Your task to perform on an android device: Show the shopping cart on costco. Add "sony triple a" to the cart on costco Image 0: 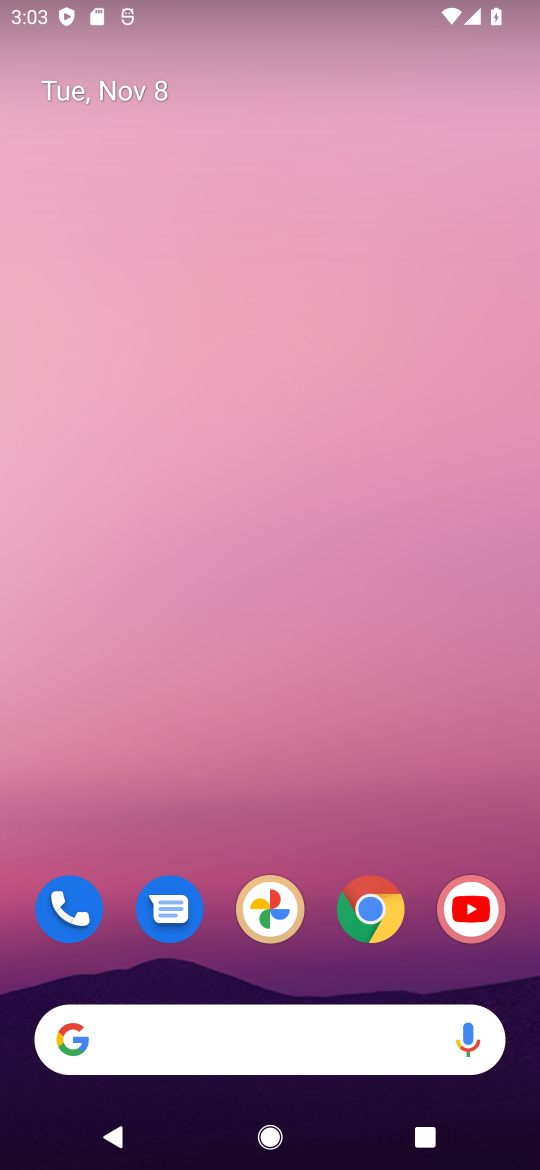
Step 0: click (368, 918)
Your task to perform on an android device: Show the shopping cart on costco. Add "sony triple a" to the cart on costco Image 1: 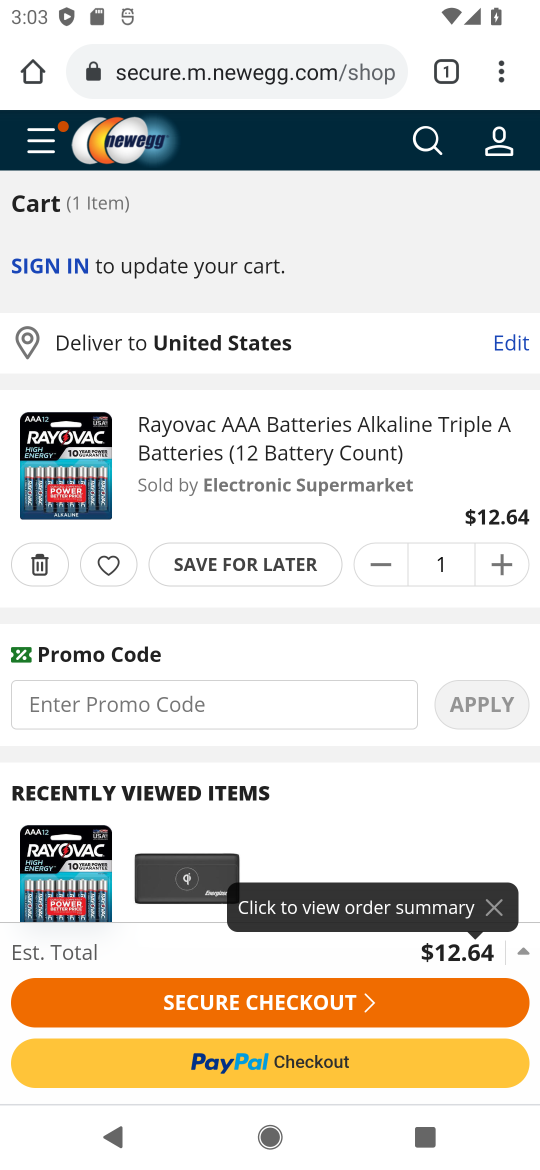
Step 1: click (339, 75)
Your task to perform on an android device: Show the shopping cart on costco. Add "sony triple a" to the cart on costco Image 2: 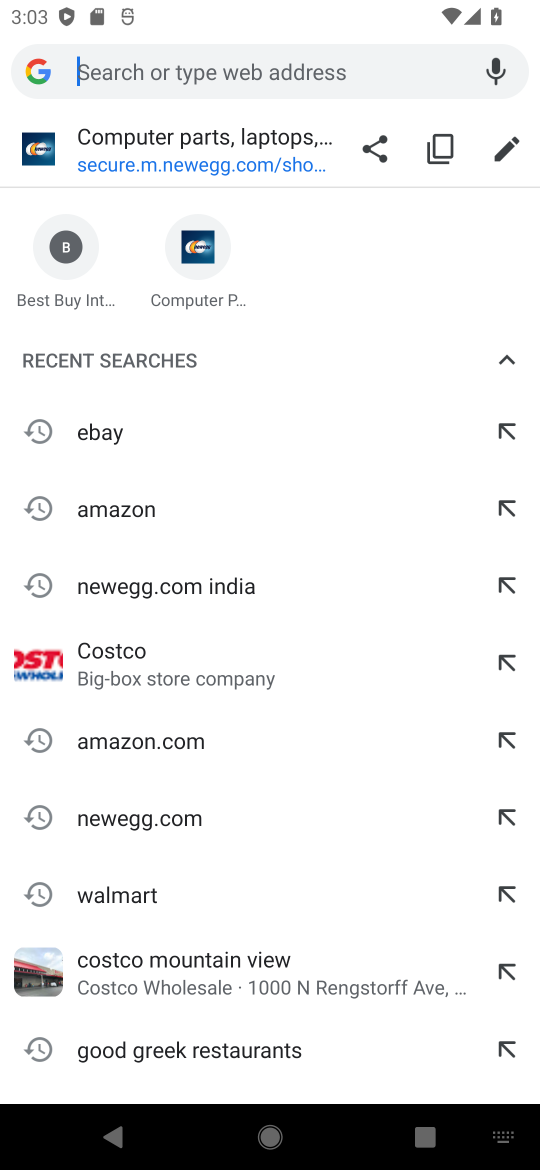
Step 2: type "costco"
Your task to perform on an android device: Show the shopping cart on costco. Add "sony triple a" to the cart on costco Image 3: 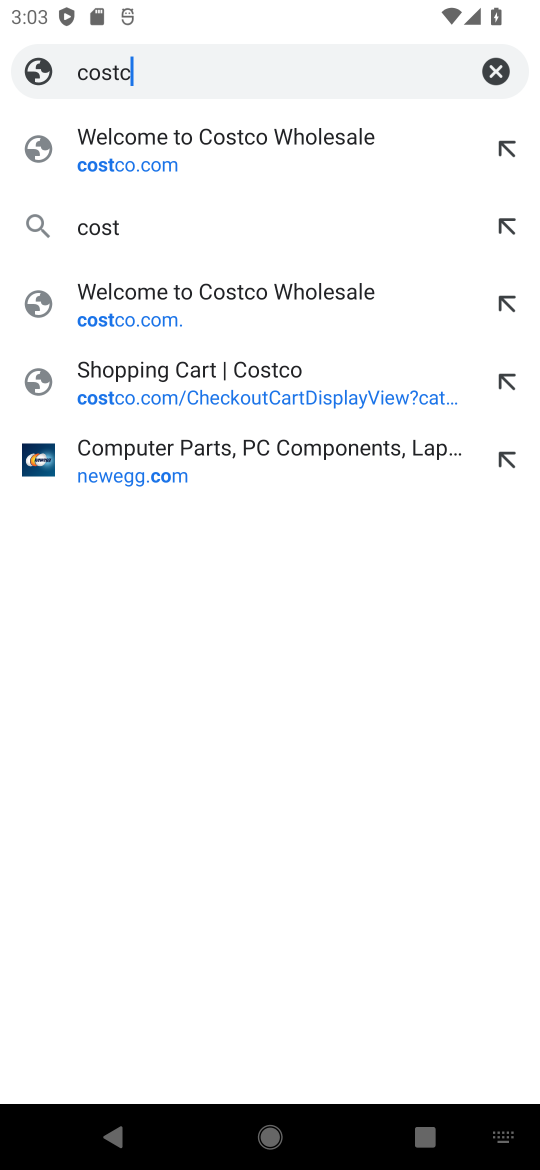
Step 3: press enter
Your task to perform on an android device: Show the shopping cart on costco. Add "sony triple a" to the cart on costco Image 4: 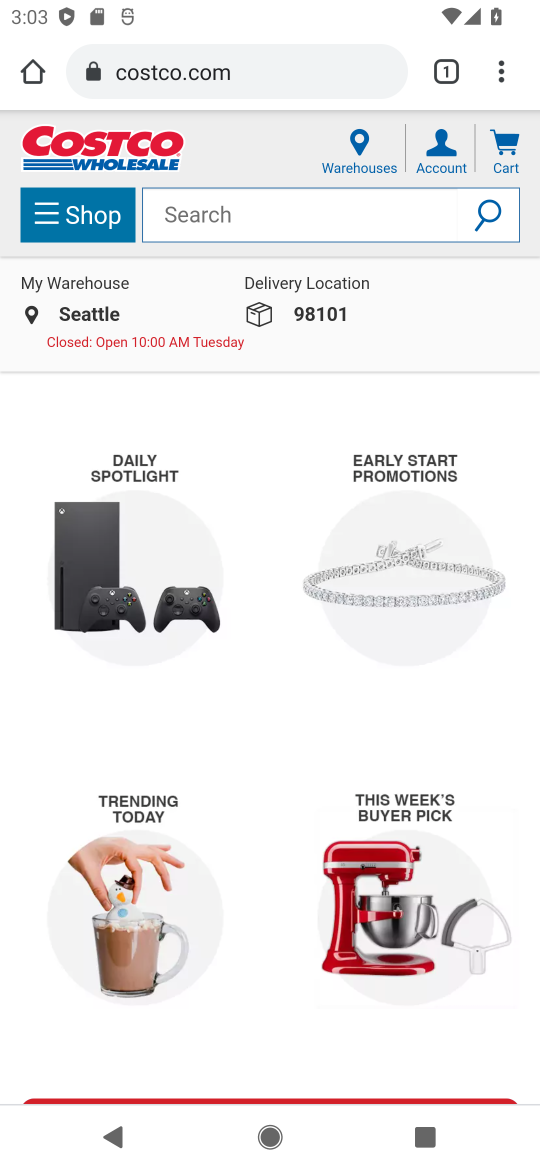
Step 4: click (337, 220)
Your task to perform on an android device: Show the shopping cart on costco. Add "sony triple a" to the cart on costco Image 5: 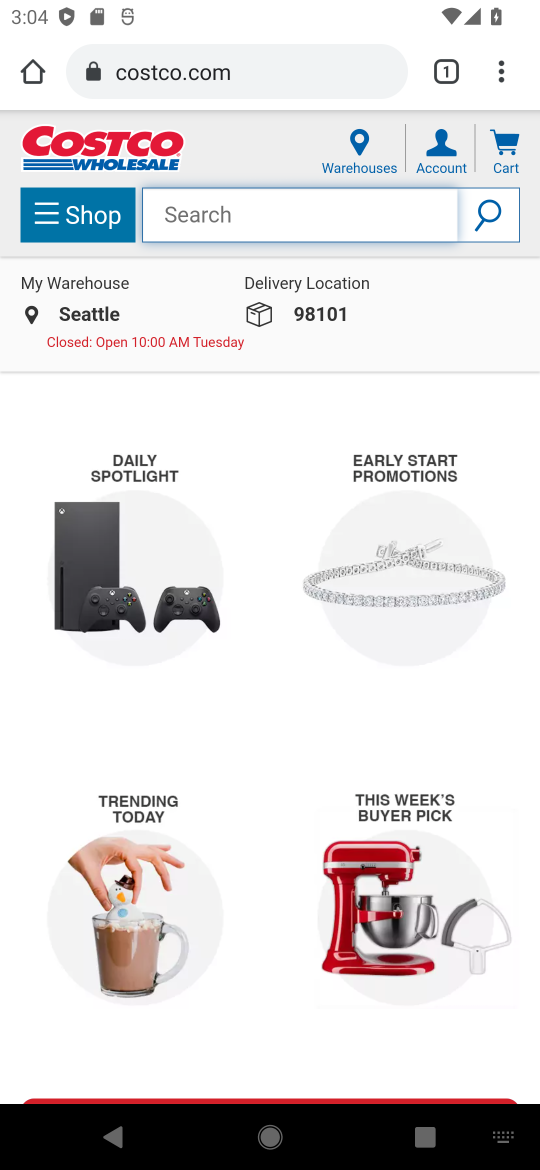
Step 5: type "sony triple a"
Your task to perform on an android device: Show the shopping cart on costco. Add "sony triple a" to the cart on costco Image 6: 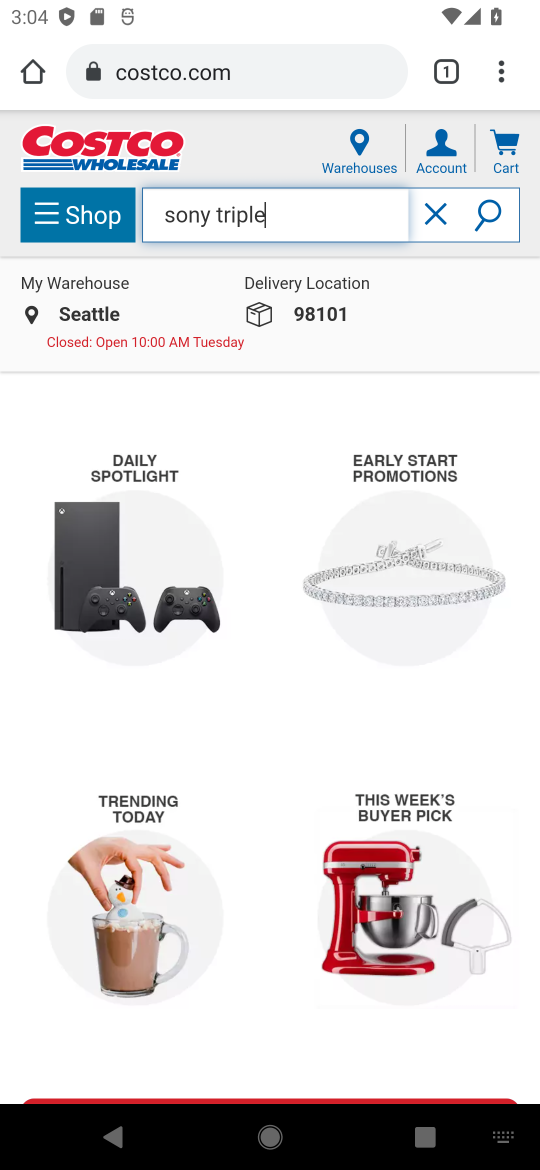
Step 6: press enter
Your task to perform on an android device: Show the shopping cart on costco. Add "sony triple a" to the cart on costco Image 7: 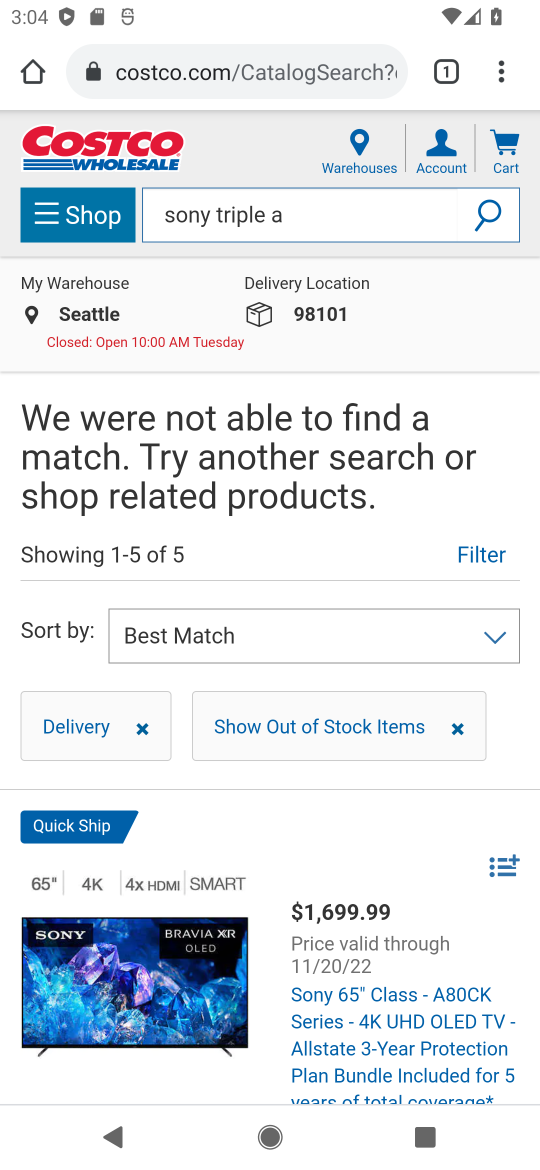
Step 7: task complete